Your task to perform on an android device: Check the weather Image 0: 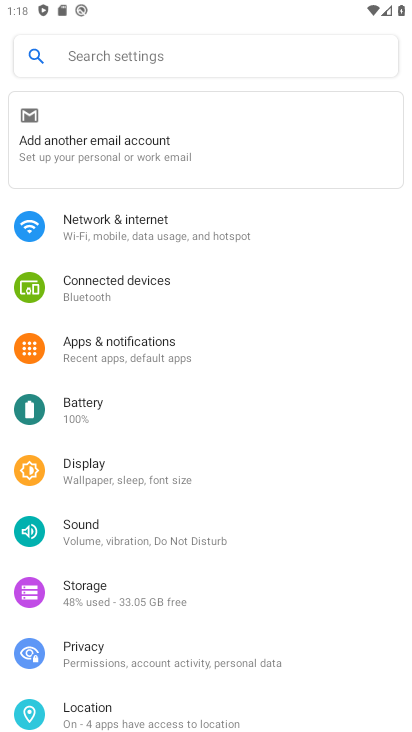
Step 0: press home button
Your task to perform on an android device: Check the weather Image 1: 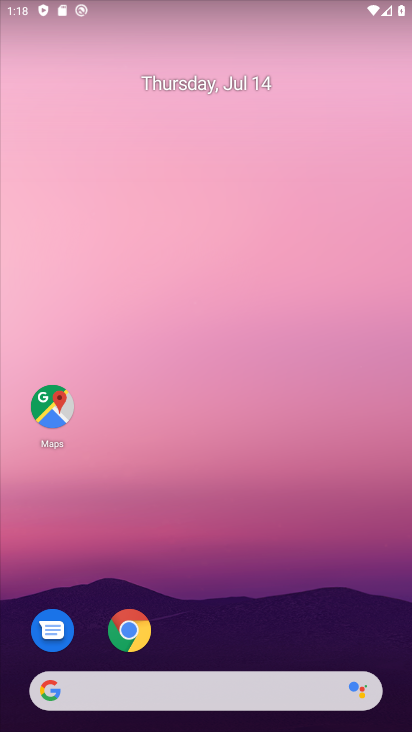
Step 1: click (120, 630)
Your task to perform on an android device: Check the weather Image 2: 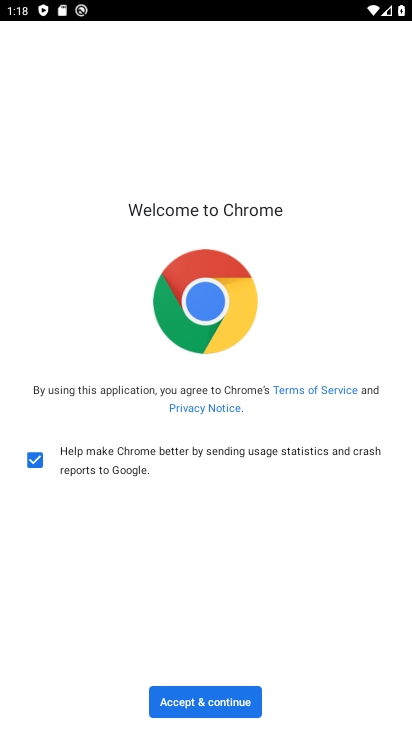
Step 2: click (195, 697)
Your task to perform on an android device: Check the weather Image 3: 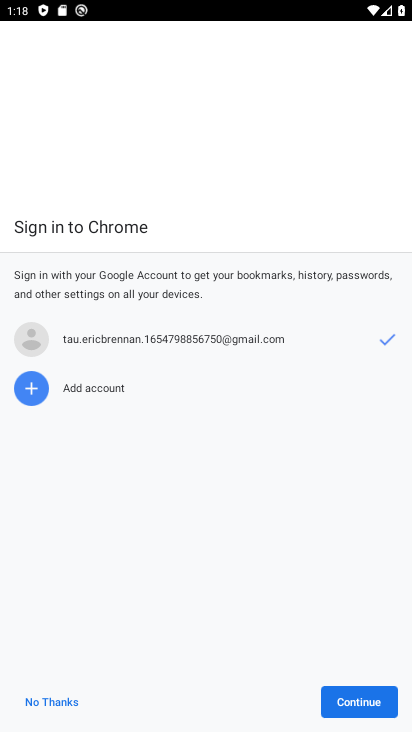
Step 3: click (356, 708)
Your task to perform on an android device: Check the weather Image 4: 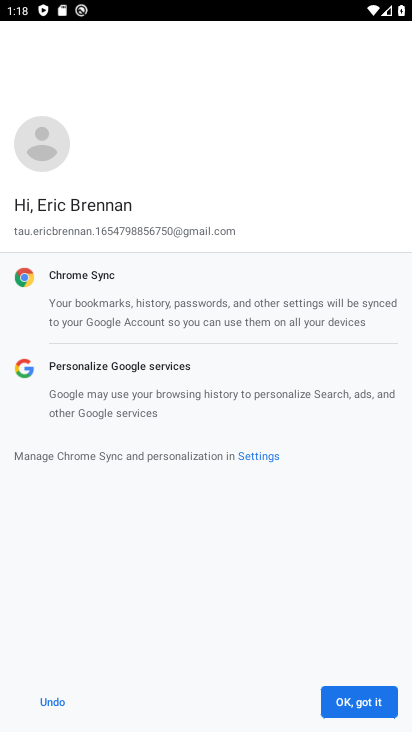
Step 4: click (369, 696)
Your task to perform on an android device: Check the weather Image 5: 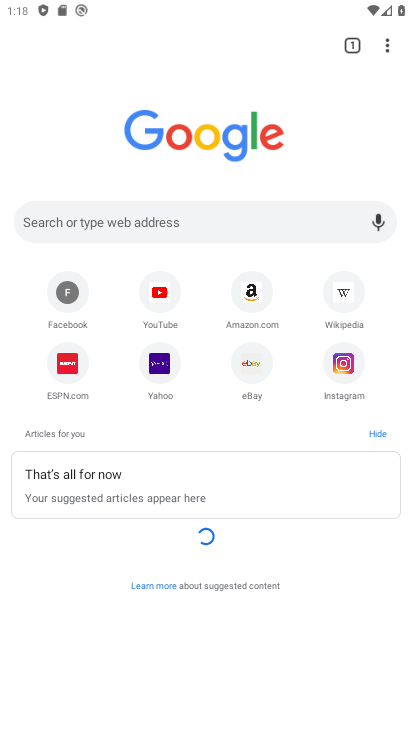
Step 5: click (185, 219)
Your task to perform on an android device: Check the weather Image 6: 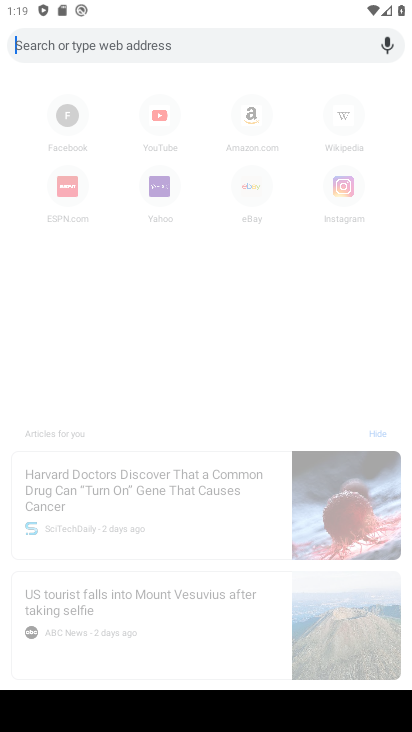
Step 6: type "weather"
Your task to perform on an android device: Check the weather Image 7: 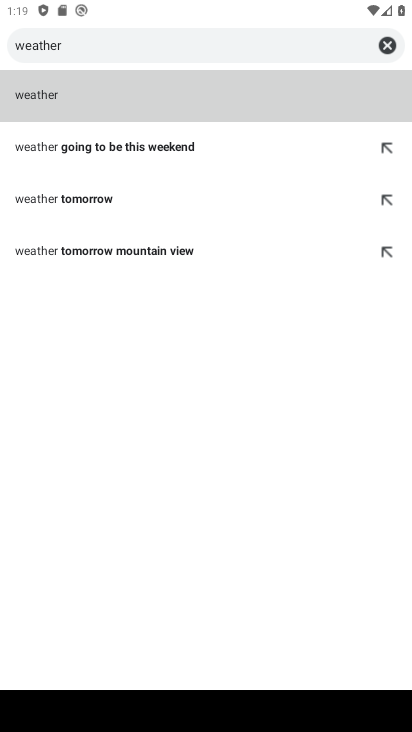
Step 7: click (135, 98)
Your task to perform on an android device: Check the weather Image 8: 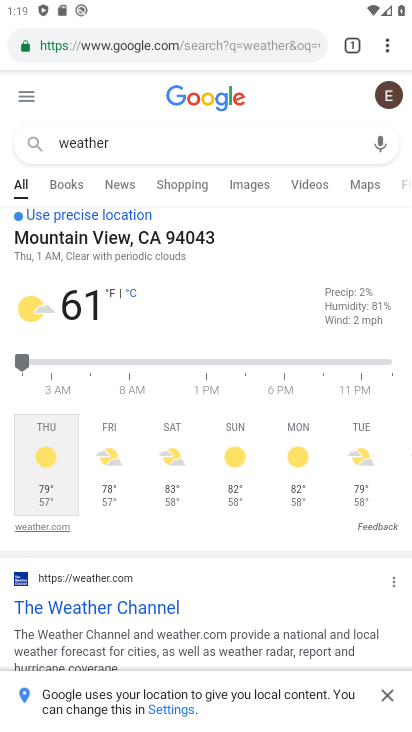
Step 8: task complete